Your task to perform on an android device: see creations saved in the google photos Image 0: 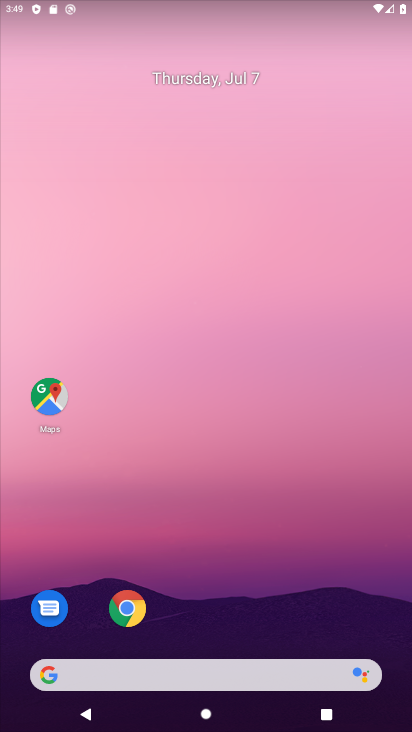
Step 0: drag from (187, 657) to (288, 130)
Your task to perform on an android device: see creations saved in the google photos Image 1: 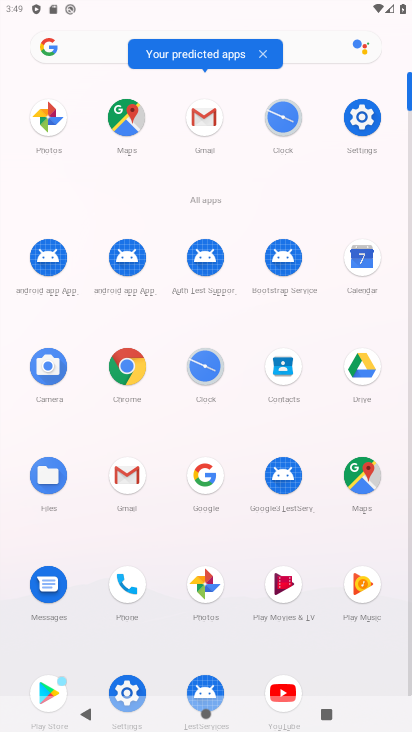
Step 1: click (199, 578)
Your task to perform on an android device: see creations saved in the google photos Image 2: 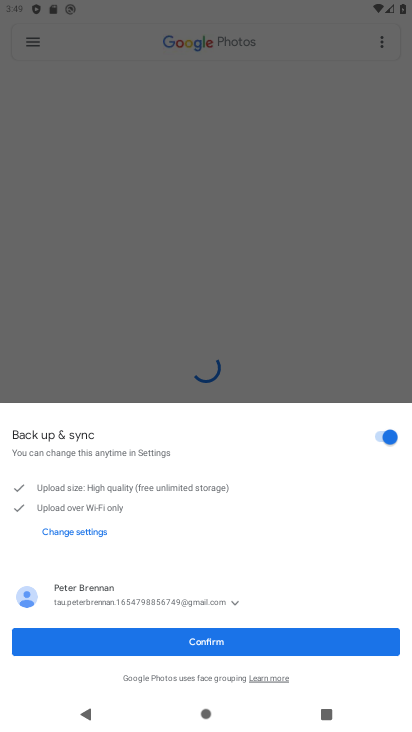
Step 2: click (218, 648)
Your task to perform on an android device: see creations saved in the google photos Image 3: 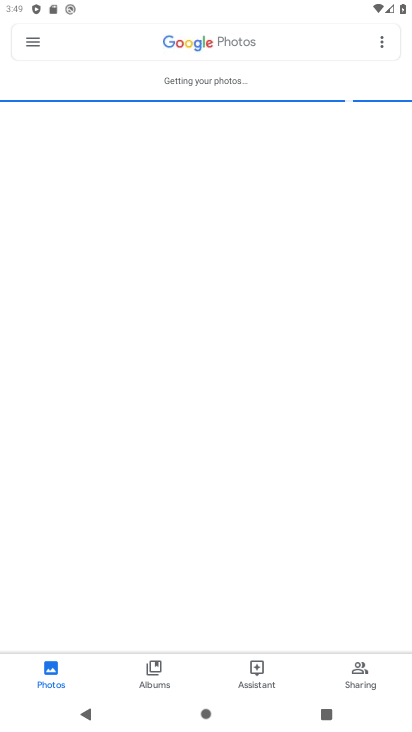
Step 3: click (222, 36)
Your task to perform on an android device: see creations saved in the google photos Image 4: 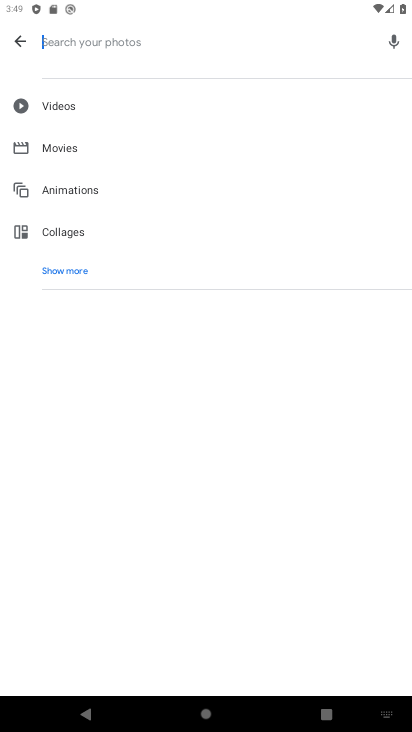
Step 4: click (57, 272)
Your task to perform on an android device: see creations saved in the google photos Image 5: 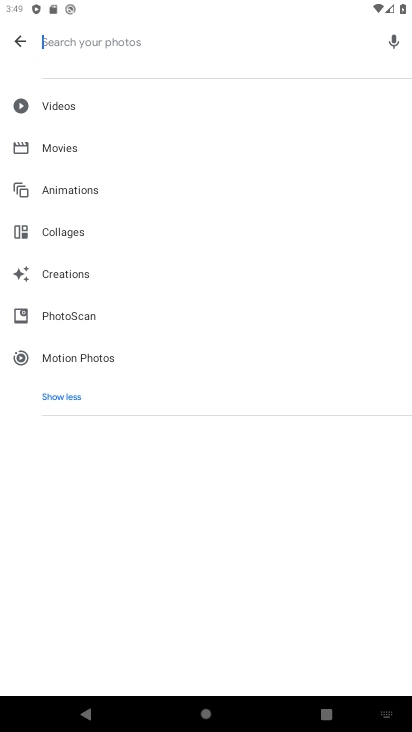
Step 5: click (90, 282)
Your task to perform on an android device: see creations saved in the google photos Image 6: 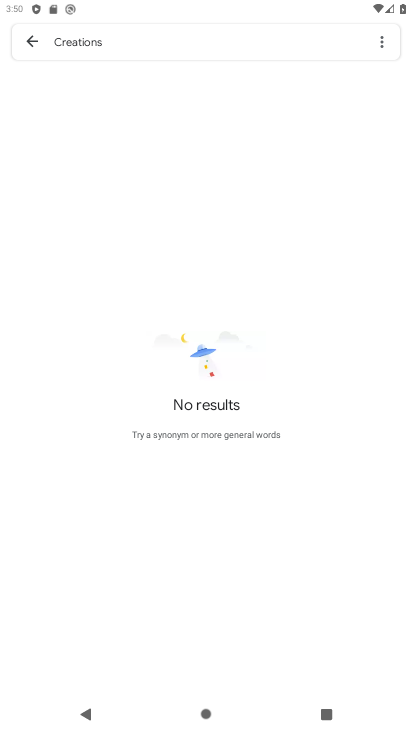
Step 6: task complete